Your task to perform on an android device: Go to network settings Image 0: 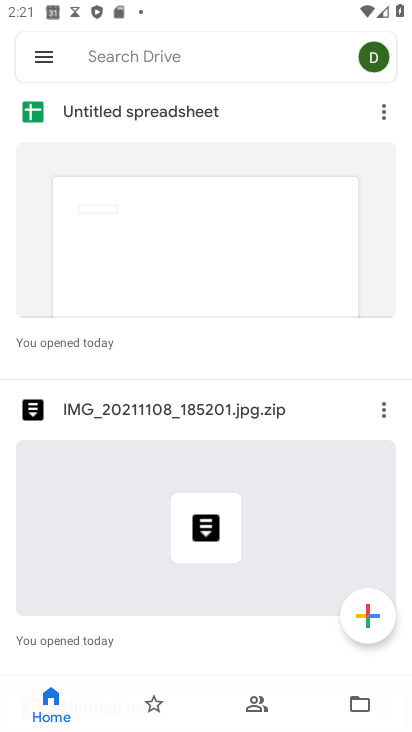
Step 0: press home button
Your task to perform on an android device: Go to network settings Image 1: 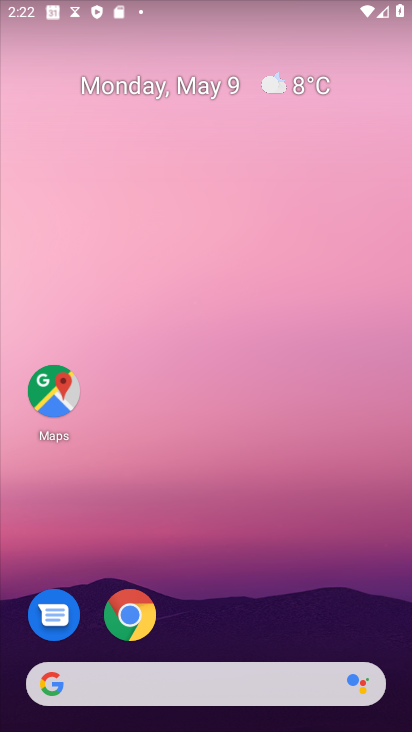
Step 1: drag from (270, 613) to (283, 117)
Your task to perform on an android device: Go to network settings Image 2: 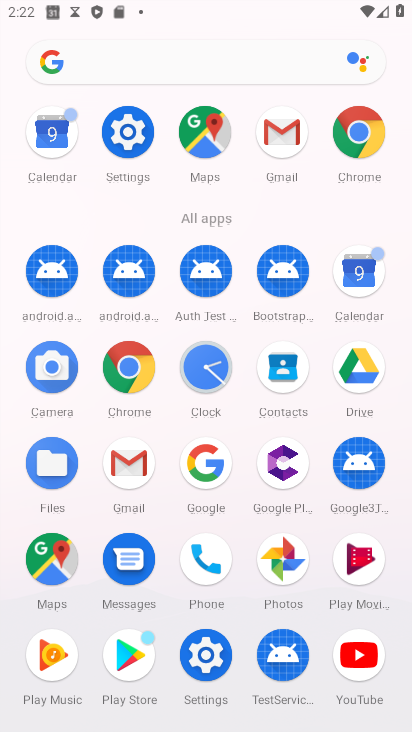
Step 2: click (118, 129)
Your task to perform on an android device: Go to network settings Image 3: 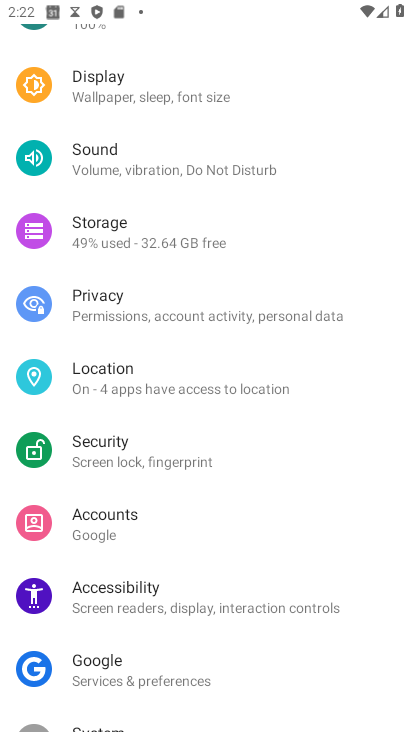
Step 3: drag from (210, 134) to (185, 726)
Your task to perform on an android device: Go to network settings Image 4: 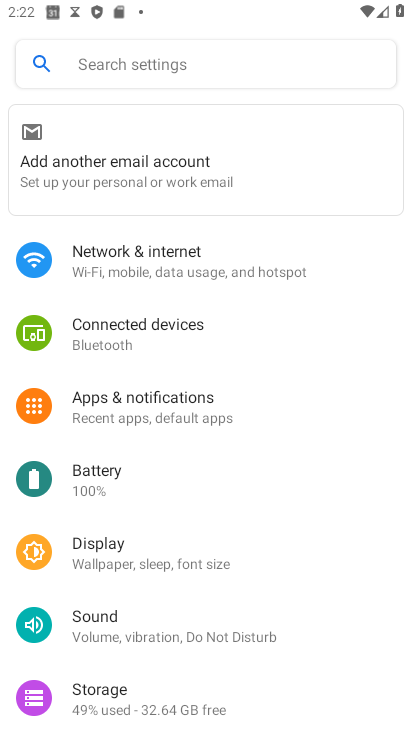
Step 4: click (200, 260)
Your task to perform on an android device: Go to network settings Image 5: 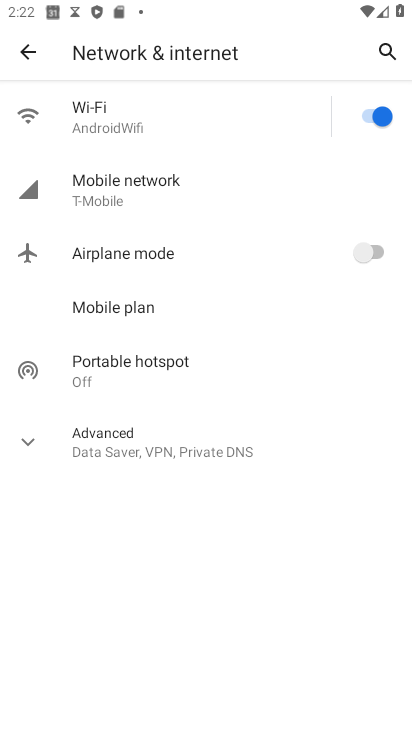
Step 5: click (269, 205)
Your task to perform on an android device: Go to network settings Image 6: 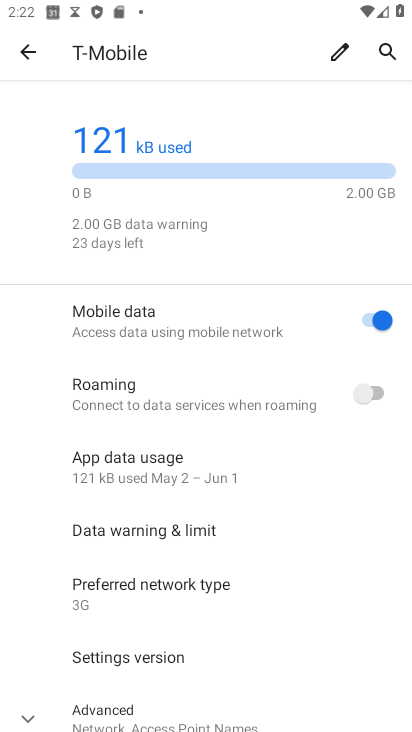
Step 6: task complete